Your task to perform on an android device: open wifi settings Image 0: 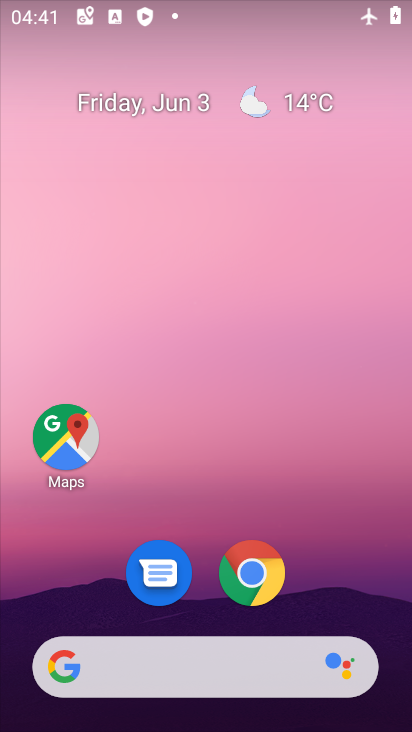
Step 0: drag from (263, 647) to (286, 38)
Your task to perform on an android device: open wifi settings Image 1: 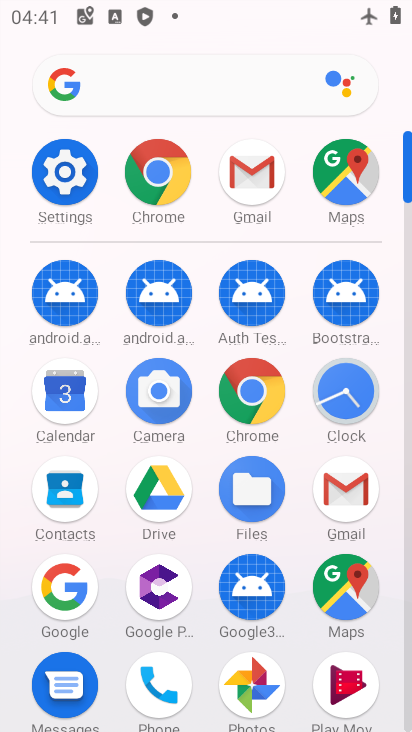
Step 1: click (74, 157)
Your task to perform on an android device: open wifi settings Image 2: 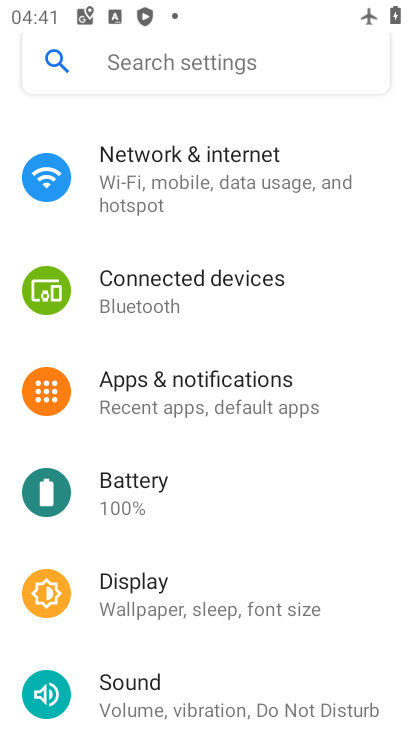
Step 2: click (249, 199)
Your task to perform on an android device: open wifi settings Image 3: 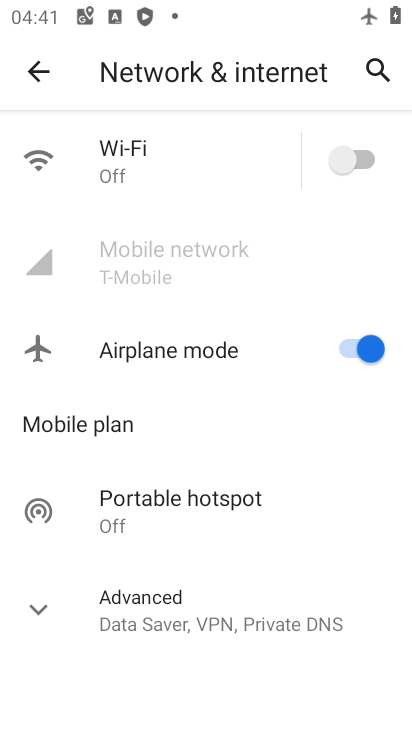
Step 3: click (173, 145)
Your task to perform on an android device: open wifi settings Image 4: 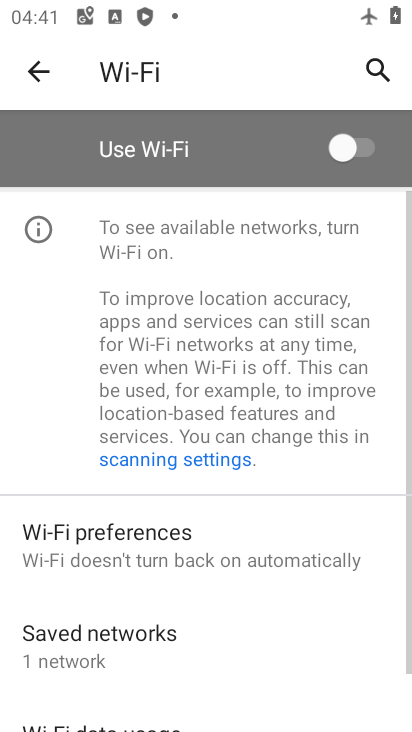
Step 4: task complete